Your task to perform on an android device: turn on sleep mode Image 0: 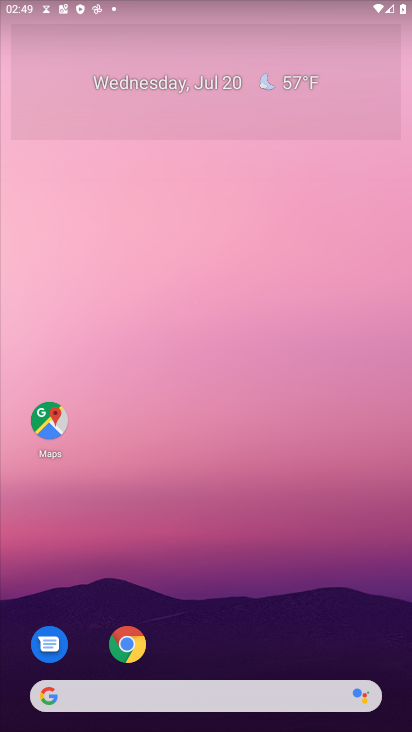
Step 0: press home button
Your task to perform on an android device: turn on sleep mode Image 1: 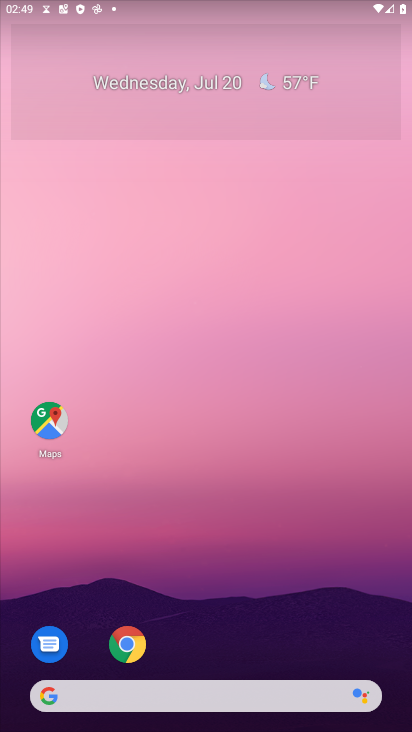
Step 1: drag from (202, 602) to (290, 6)
Your task to perform on an android device: turn on sleep mode Image 2: 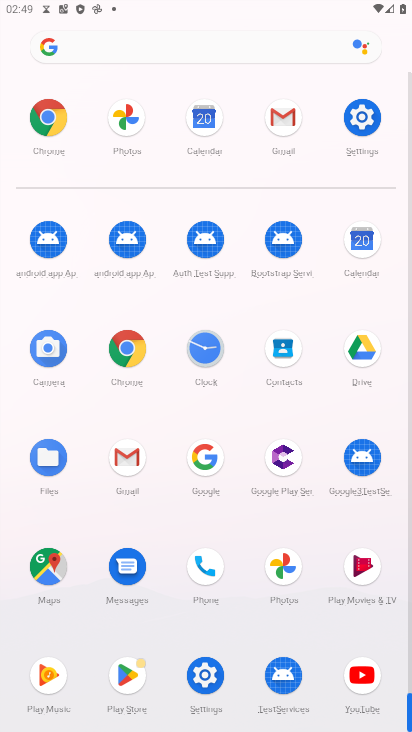
Step 2: click (355, 117)
Your task to perform on an android device: turn on sleep mode Image 3: 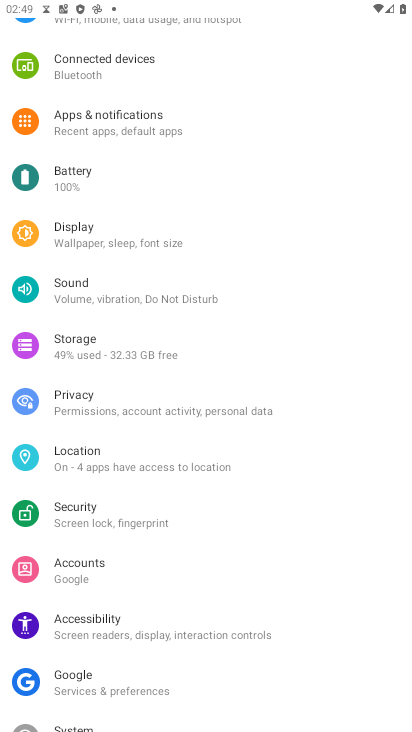
Step 3: click (59, 242)
Your task to perform on an android device: turn on sleep mode Image 4: 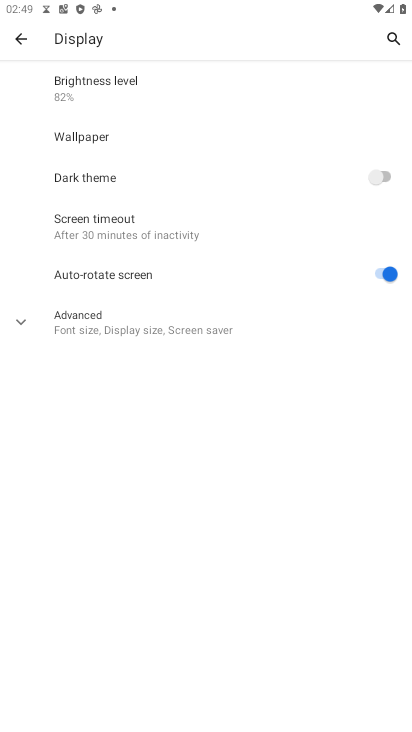
Step 4: task complete